Your task to perform on an android device: Search for "razer nari" on bestbuy, select the first entry, add it to the cart, then select checkout. Image 0: 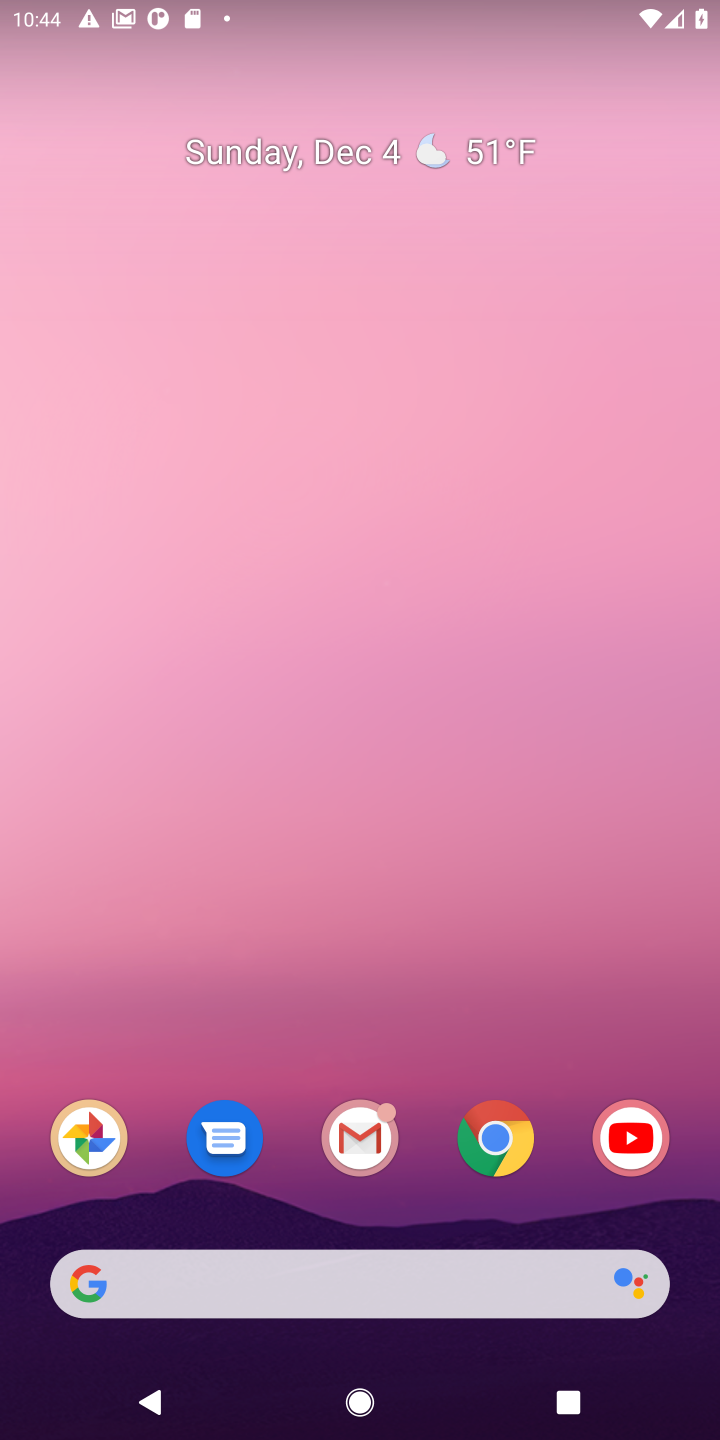
Step 0: click (477, 1142)
Your task to perform on an android device: Search for "razer nari" on bestbuy, select the first entry, add it to the cart, then select checkout. Image 1: 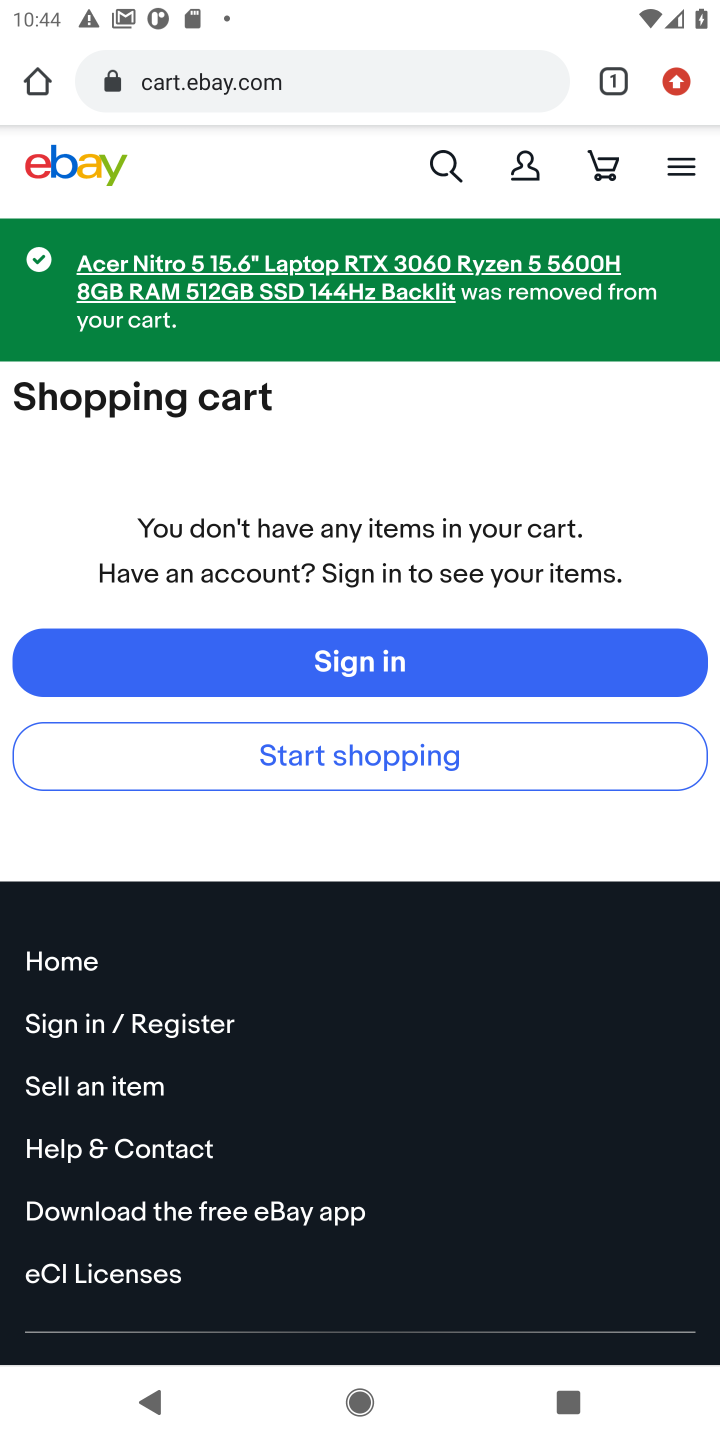
Step 1: click (202, 65)
Your task to perform on an android device: Search for "razer nari" on bestbuy, select the first entry, add it to the cart, then select checkout. Image 2: 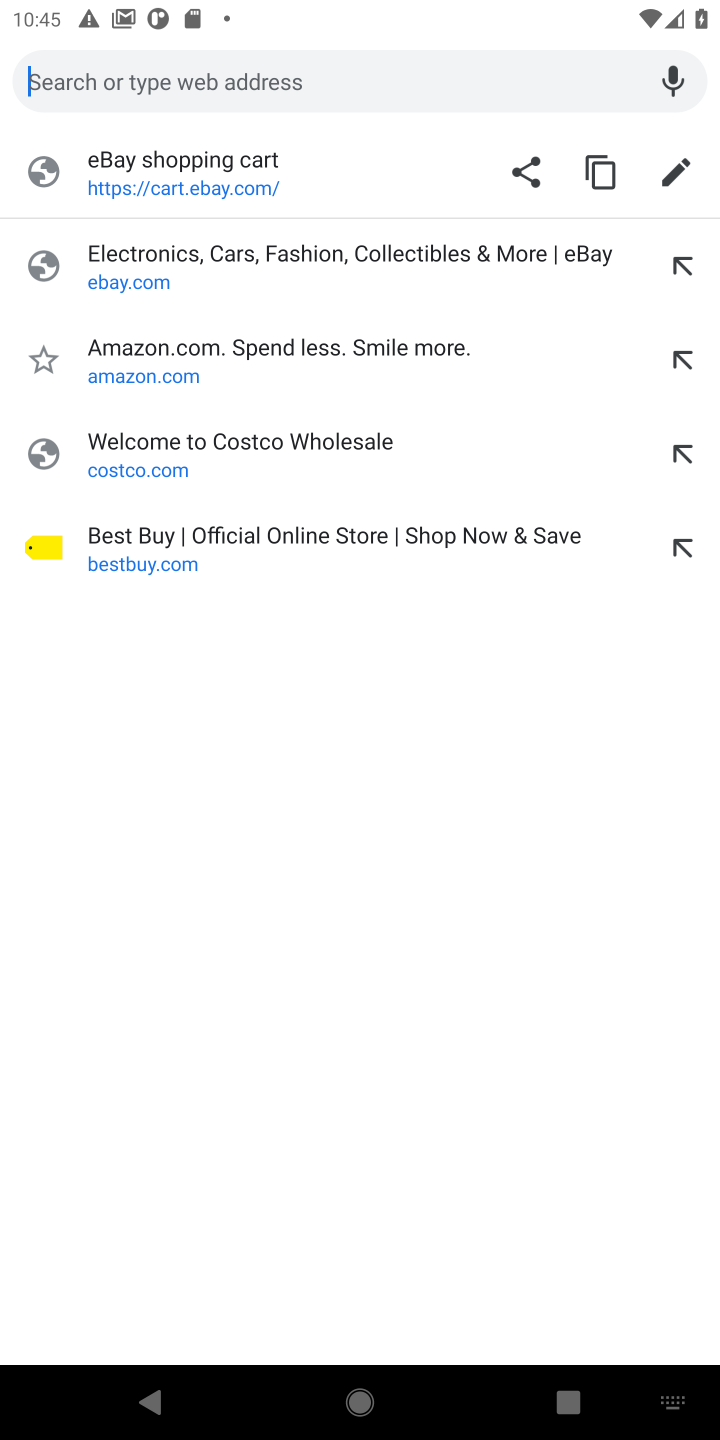
Step 2: type "bestbuy"
Your task to perform on an android device: Search for "razer nari" on bestbuy, select the first entry, add it to the cart, then select checkout. Image 3: 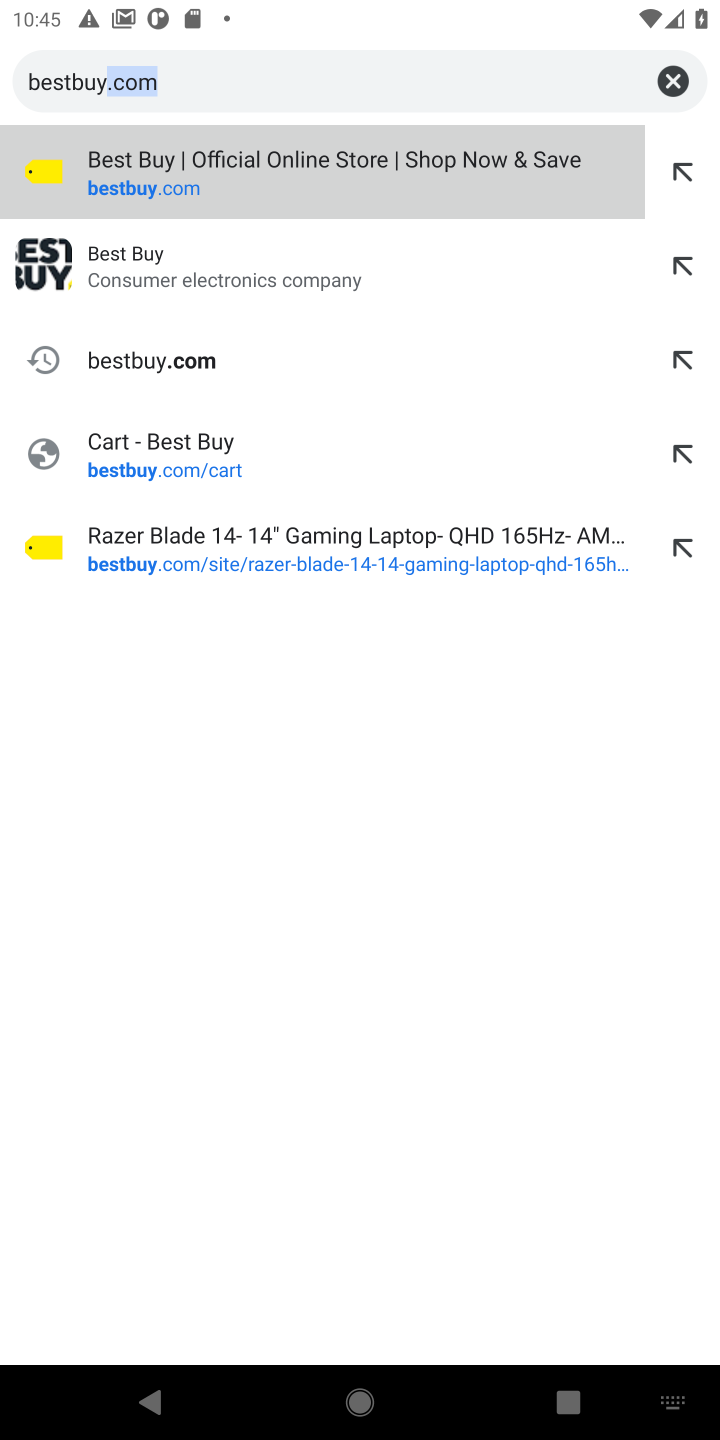
Step 3: press enter
Your task to perform on an android device: Search for "razer nari" on bestbuy, select the first entry, add it to the cart, then select checkout. Image 4: 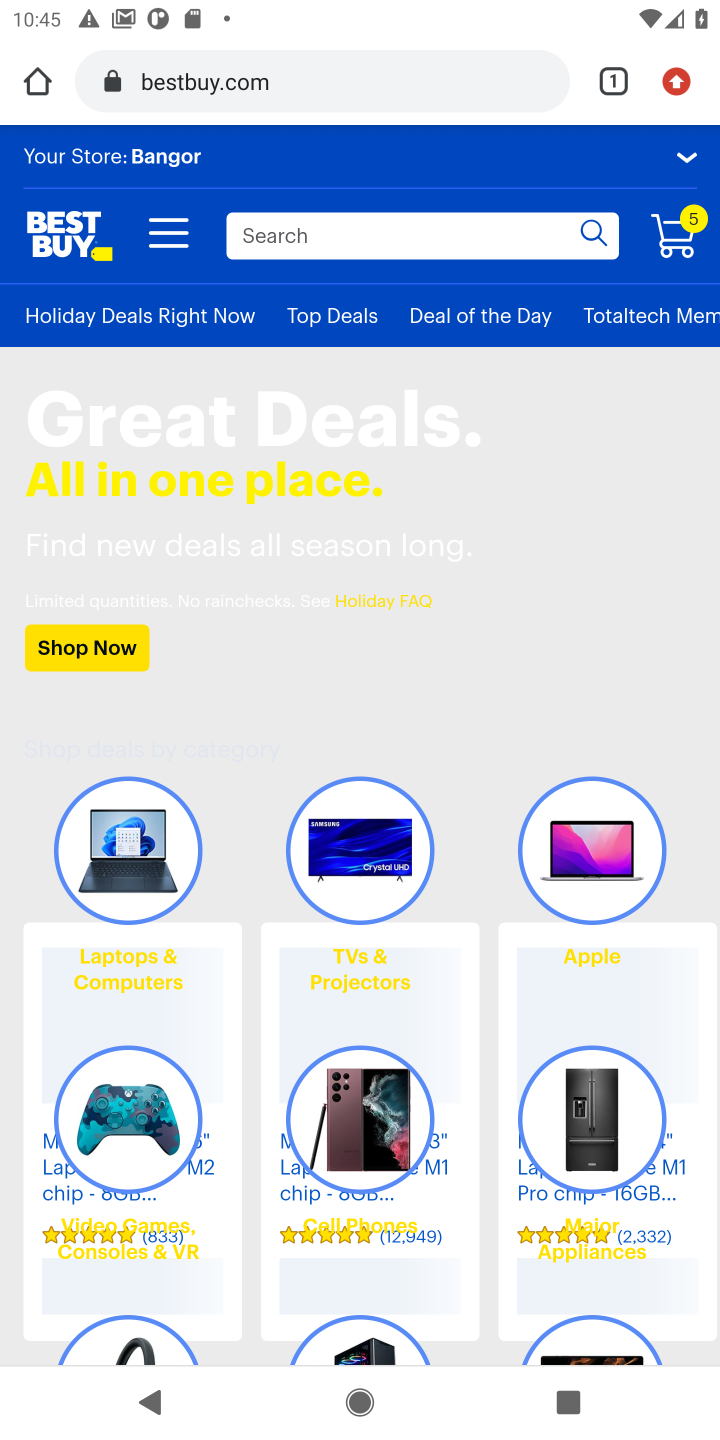
Step 4: click (352, 223)
Your task to perform on an android device: Search for "razer nari" on bestbuy, select the first entry, add it to the cart, then select checkout. Image 5: 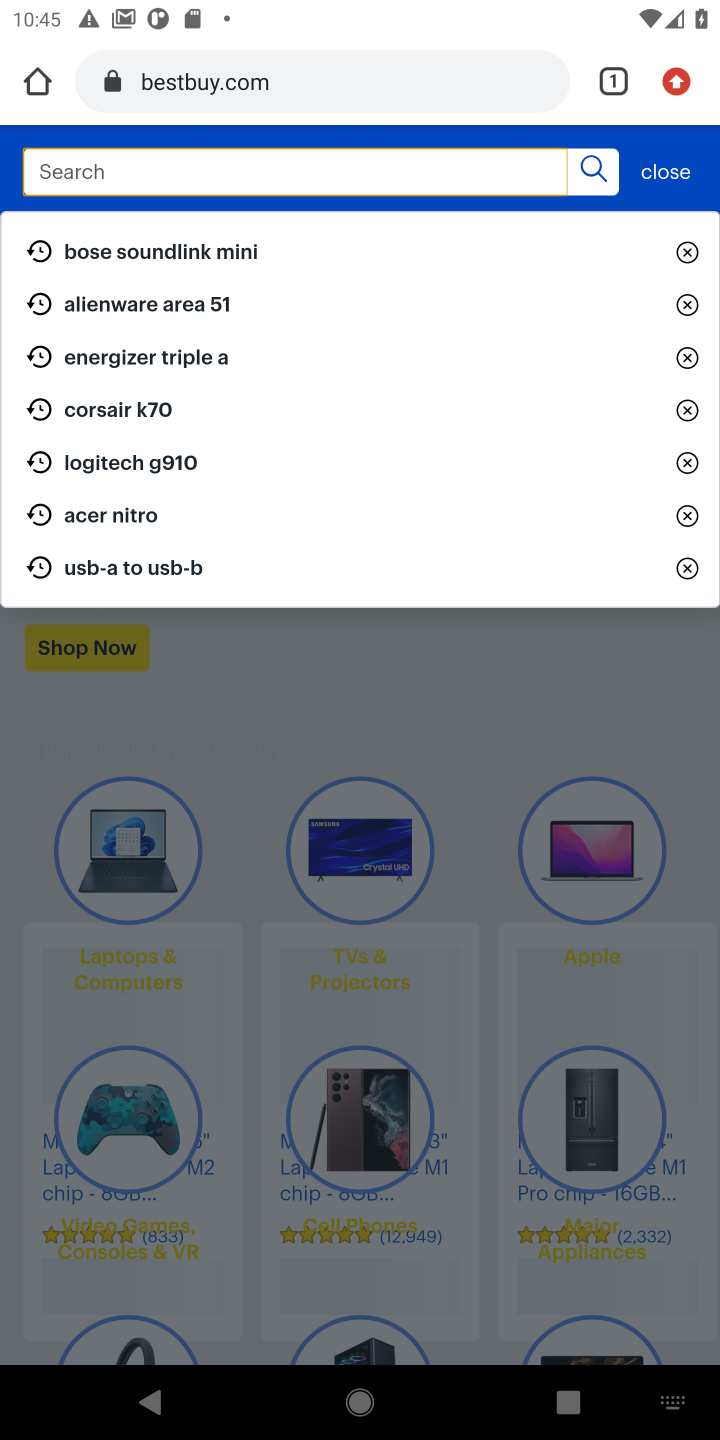
Step 5: type "razer nari"
Your task to perform on an android device: Search for "razer nari" on bestbuy, select the first entry, add it to the cart, then select checkout. Image 6: 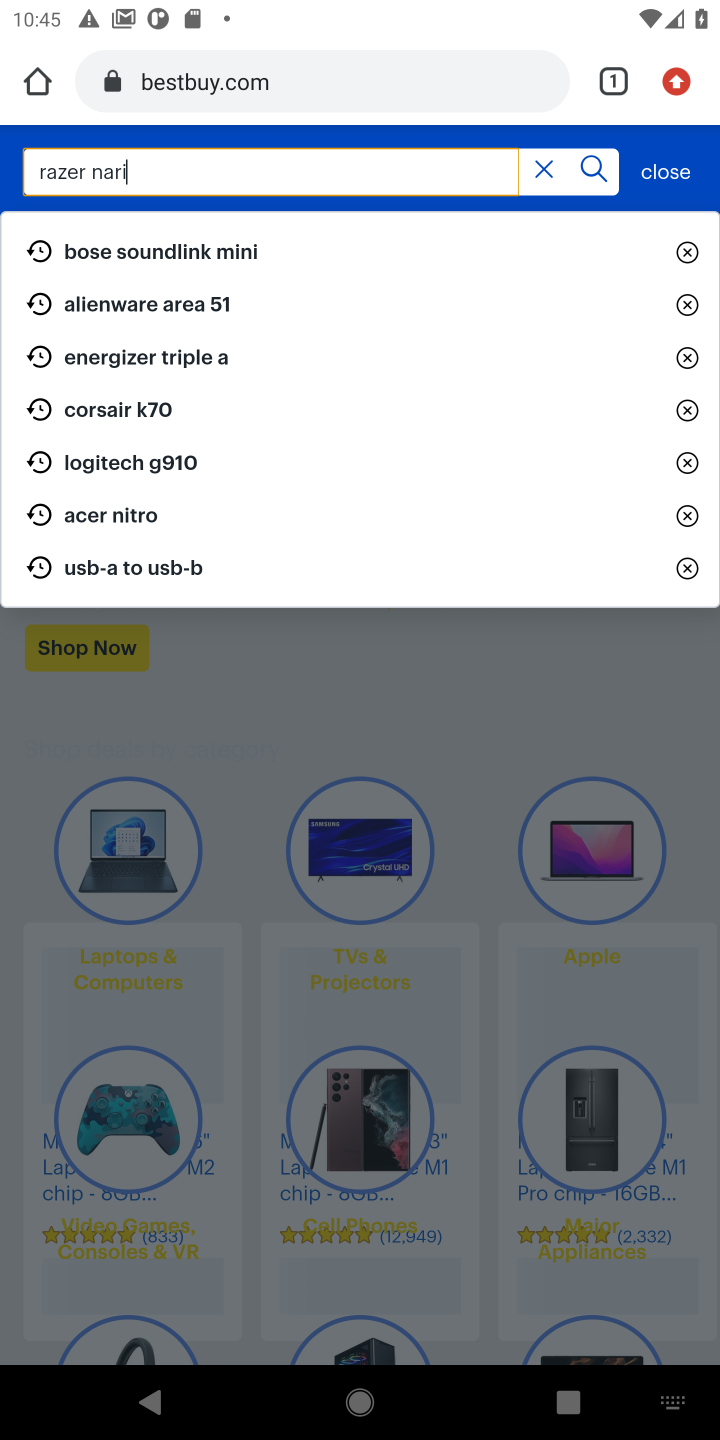
Step 6: press enter
Your task to perform on an android device: Search for "razer nari" on bestbuy, select the first entry, add it to the cart, then select checkout. Image 7: 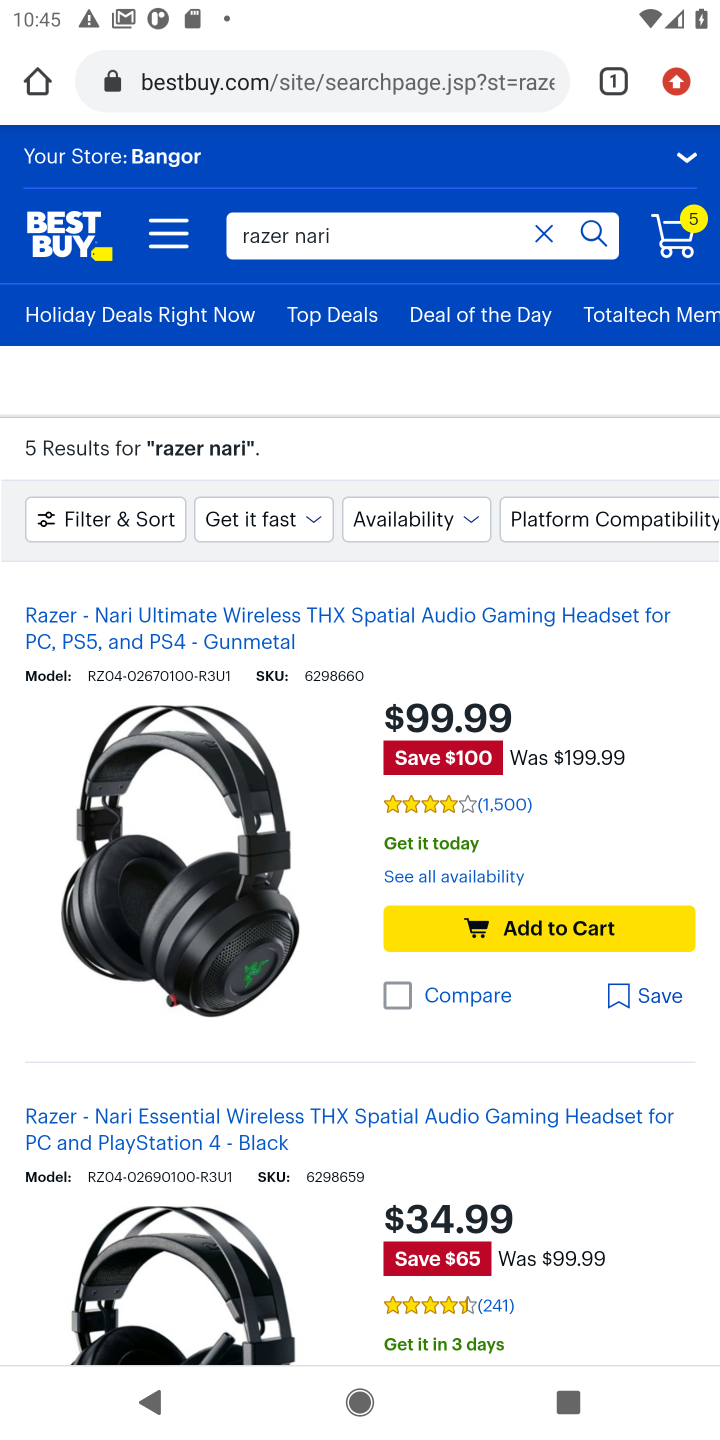
Step 7: click (150, 829)
Your task to perform on an android device: Search for "razer nari" on bestbuy, select the first entry, add it to the cart, then select checkout. Image 8: 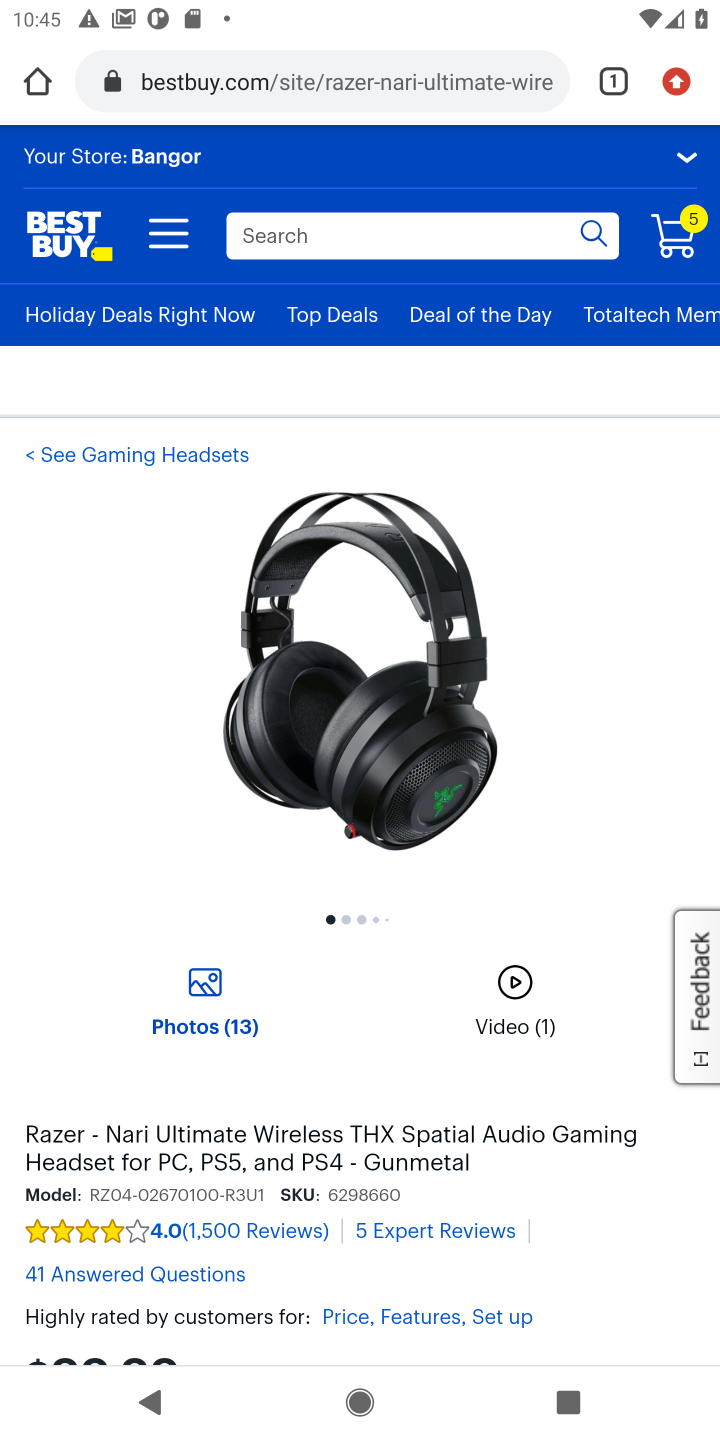
Step 8: drag from (575, 1141) to (554, 468)
Your task to perform on an android device: Search for "razer nari" on bestbuy, select the first entry, add it to the cart, then select checkout. Image 9: 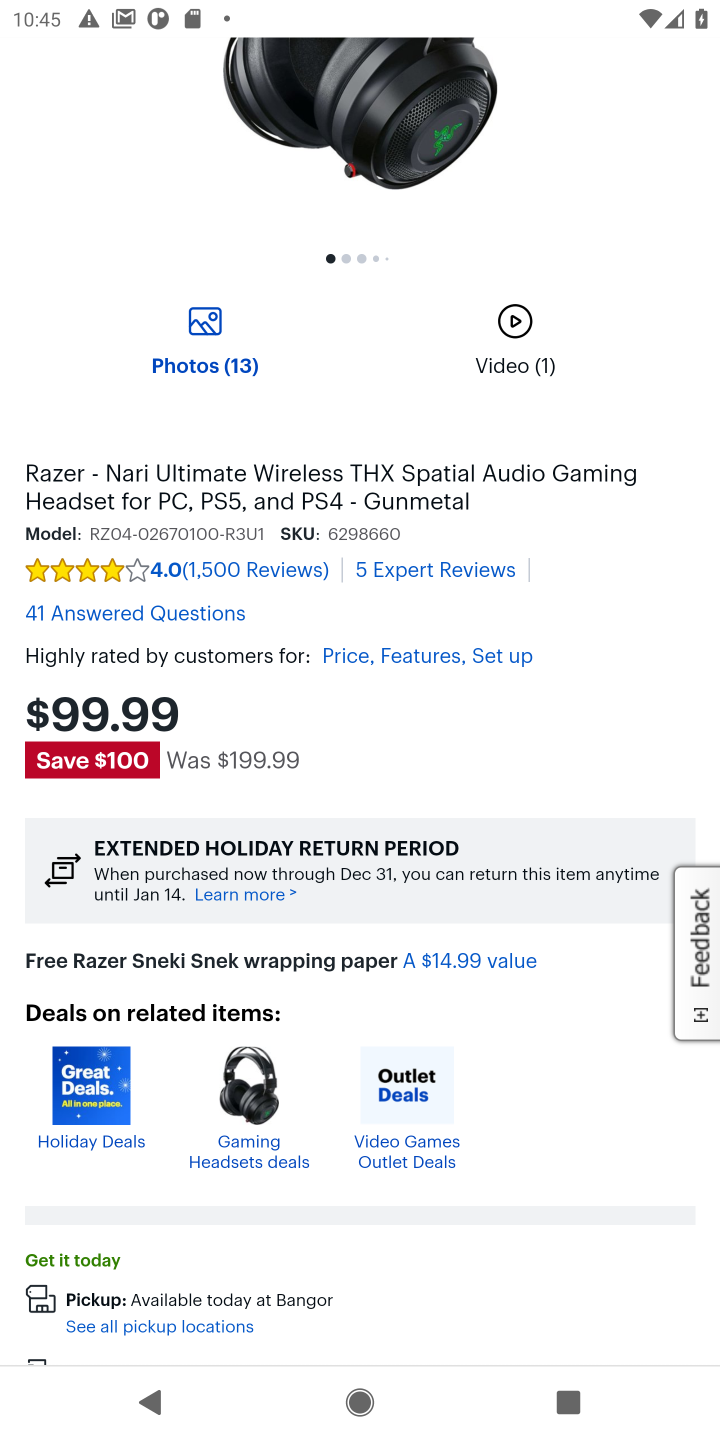
Step 9: drag from (629, 1143) to (566, 379)
Your task to perform on an android device: Search for "razer nari" on bestbuy, select the first entry, add it to the cart, then select checkout. Image 10: 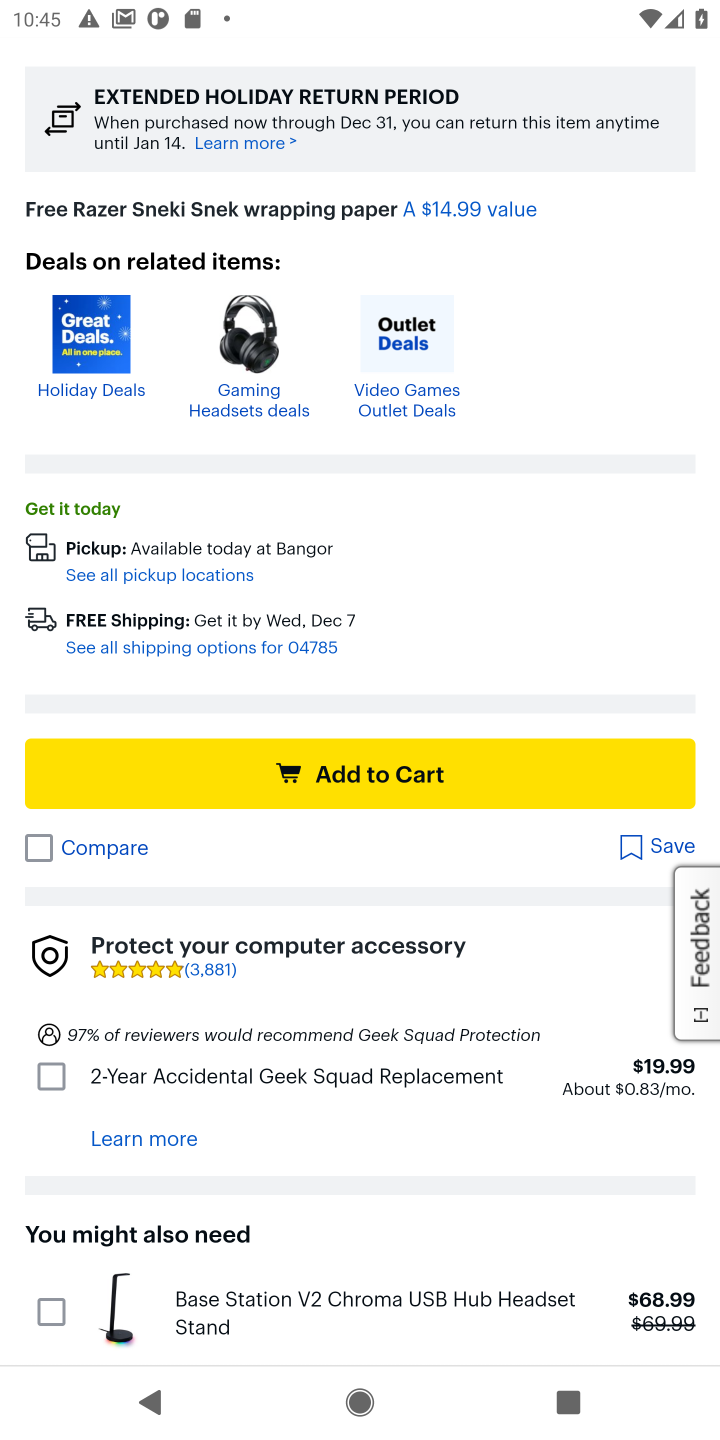
Step 10: click (397, 760)
Your task to perform on an android device: Search for "razer nari" on bestbuy, select the first entry, add it to the cart, then select checkout. Image 11: 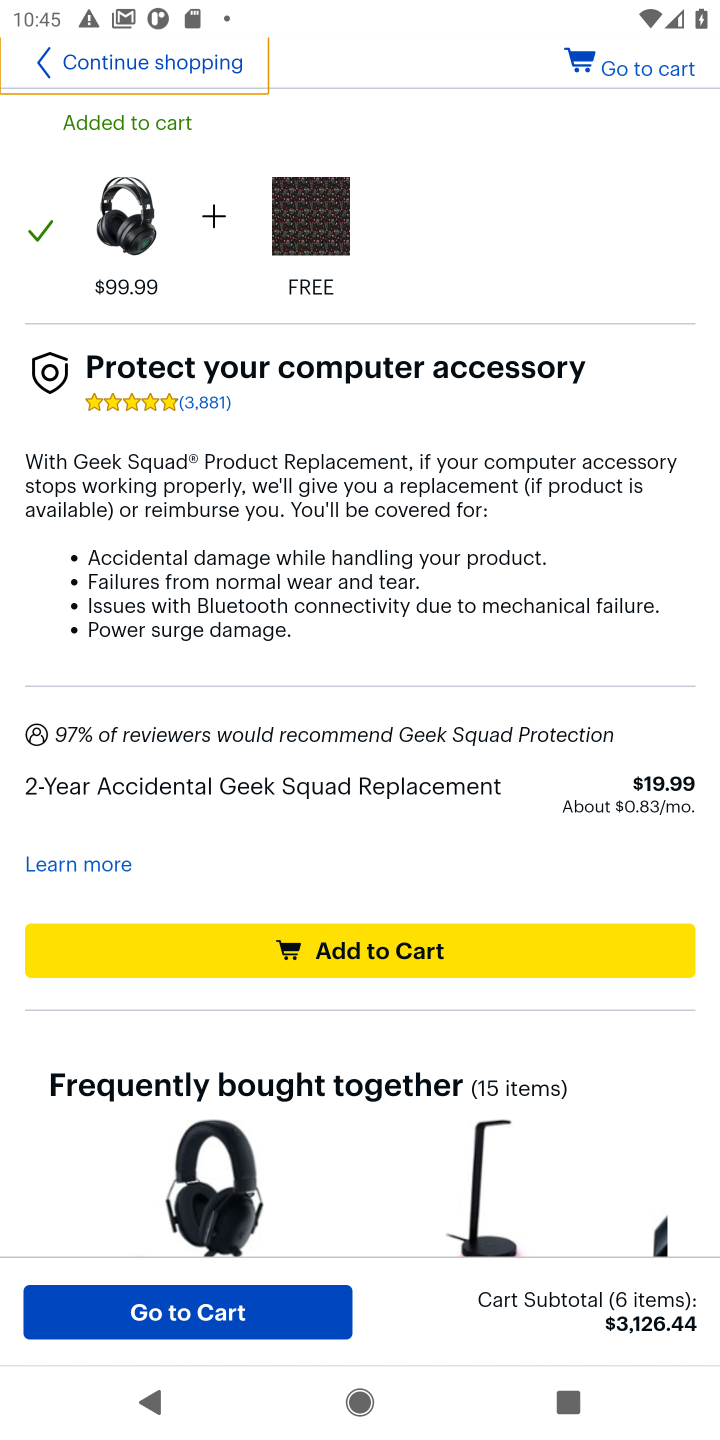
Step 11: click (214, 1310)
Your task to perform on an android device: Search for "razer nari" on bestbuy, select the first entry, add it to the cart, then select checkout. Image 12: 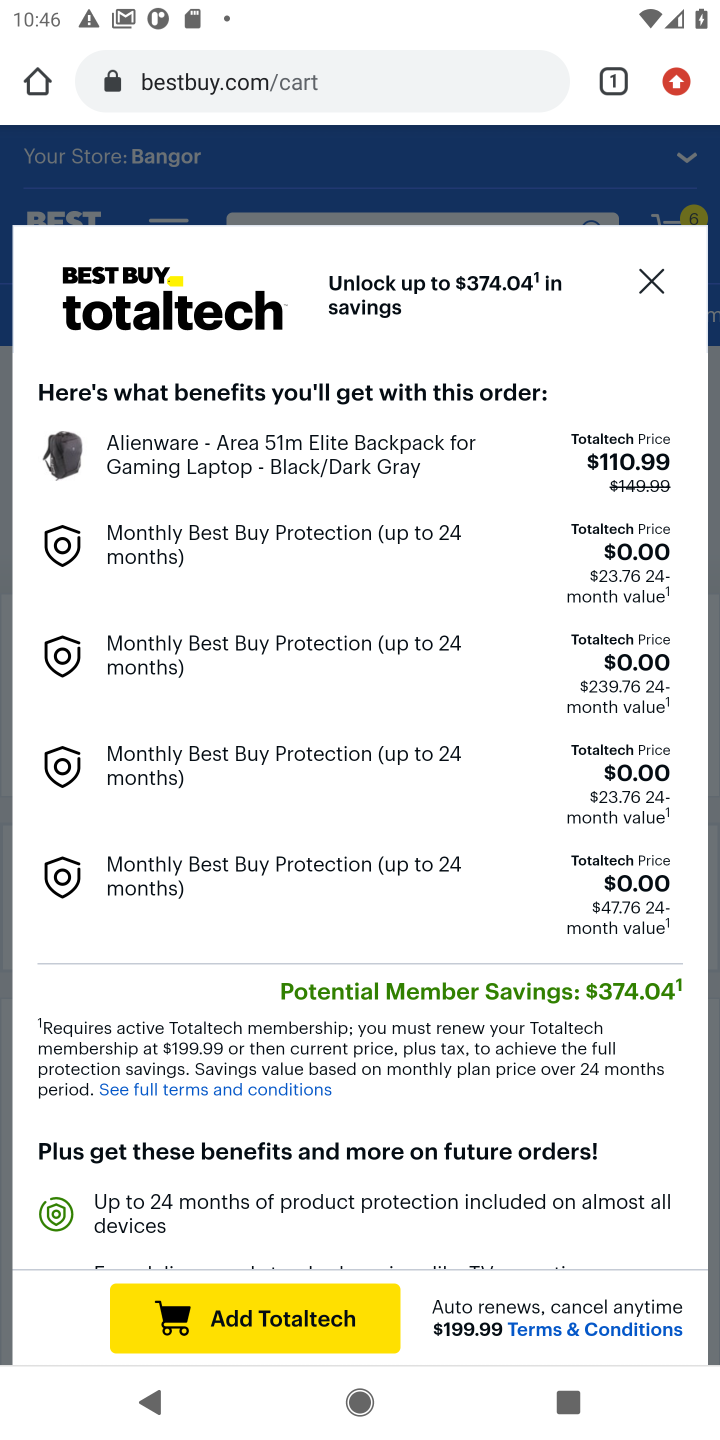
Step 12: click (653, 278)
Your task to perform on an android device: Search for "razer nari" on bestbuy, select the first entry, add it to the cart, then select checkout. Image 13: 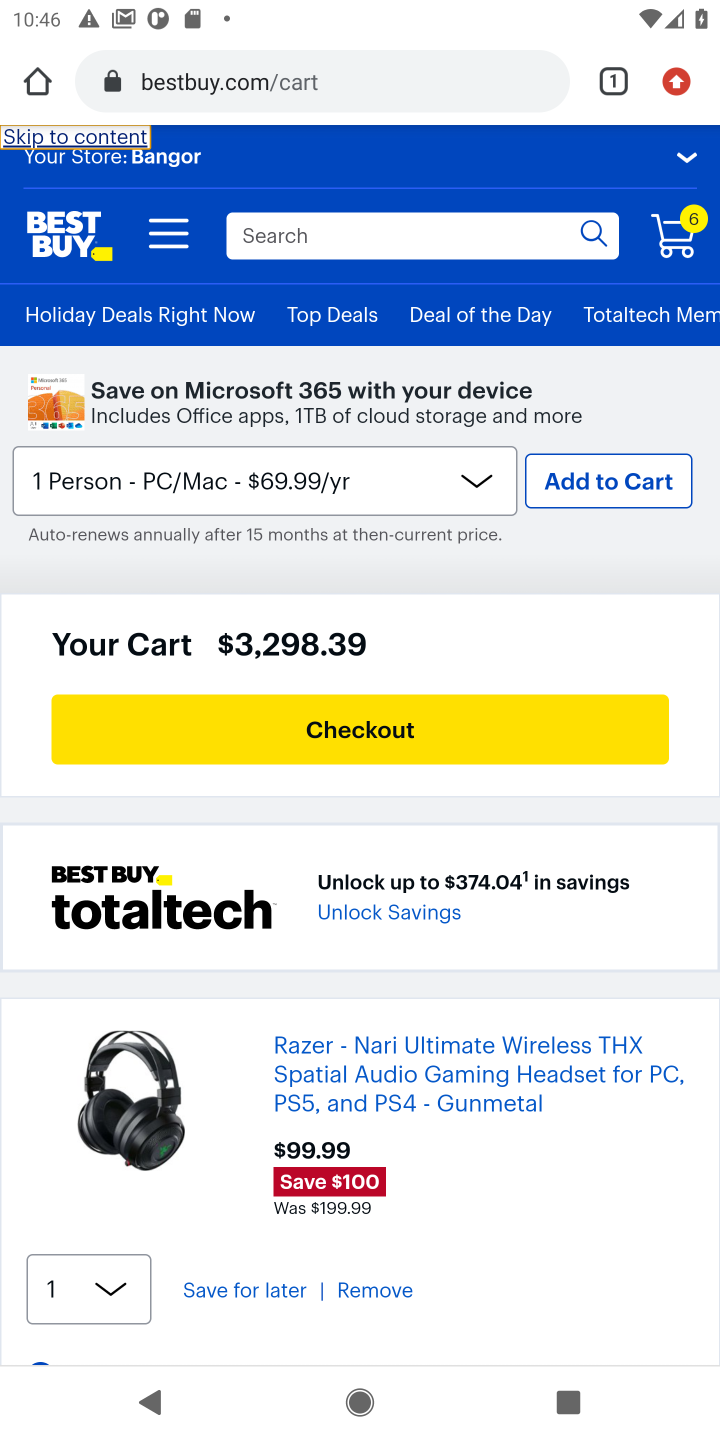
Step 13: click (358, 724)
Your task to perform on an android device: Search for "razer nari" on bestbuy, select the first entry, add it to the cart, then select checkout. Image 14: 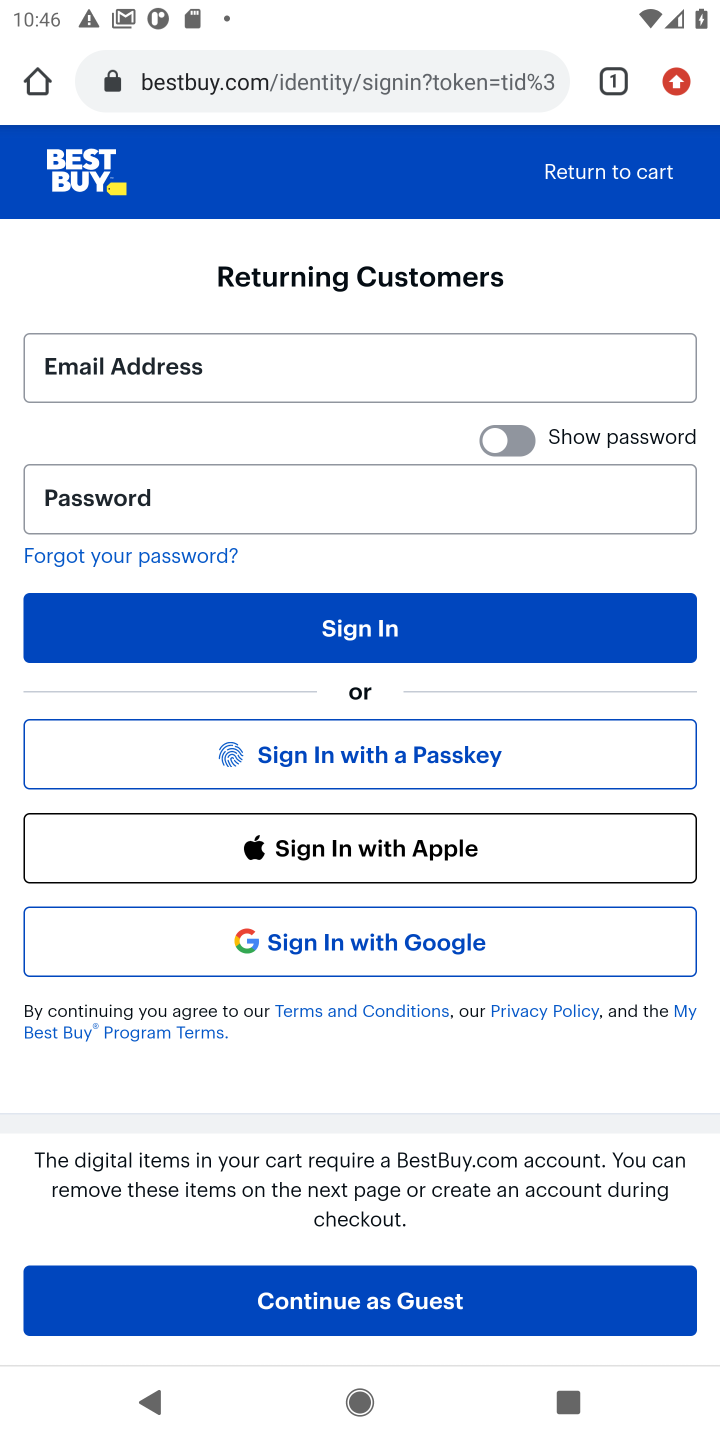
Step 14: task complete